Your task to perform on an android device: Find coffee shops on Maps Image 0: 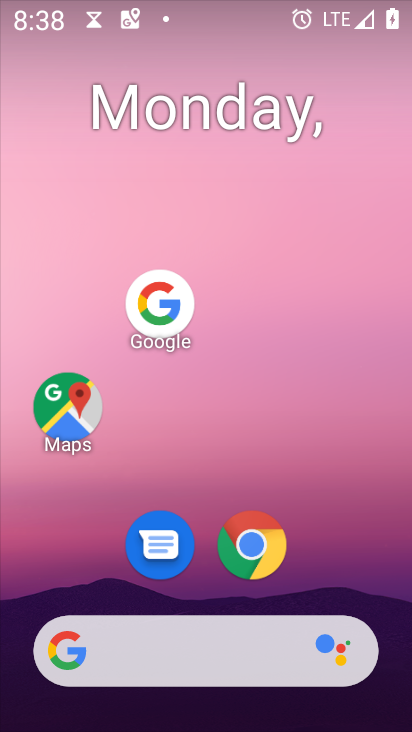
Step 0: click (61, 415)
Your task to perform on an android device: Find coffee shops on Maps Image 1: 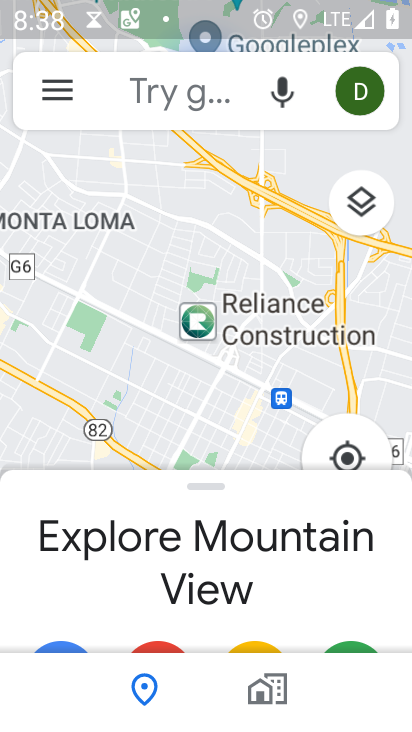
Step 1: click (181, 94)
Your task to perform on an android device: Find coffee shops on Maps Image 2: 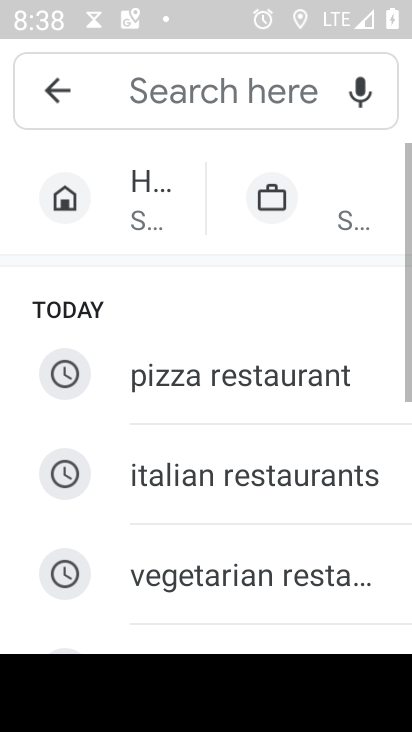
Step 2: drag from (204, 581) to (363, 191)
Your task to perform on an android device: Find coffee shops on Maps Image 3: 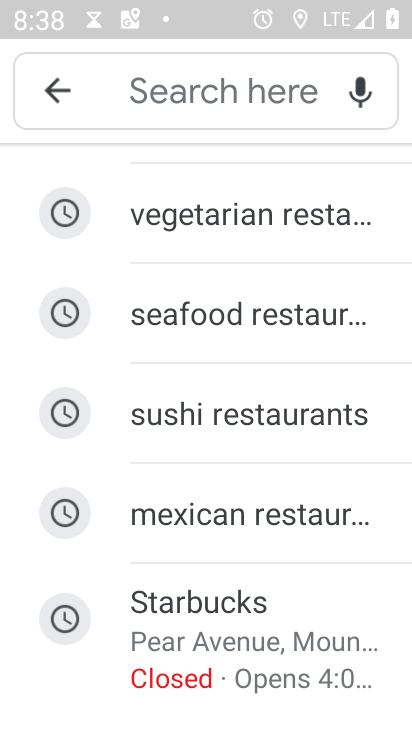
Step 3: drag from (251, 586) to (243, 669)
Your task to perform on an android device: Find coffee shops on Maps Image 4: 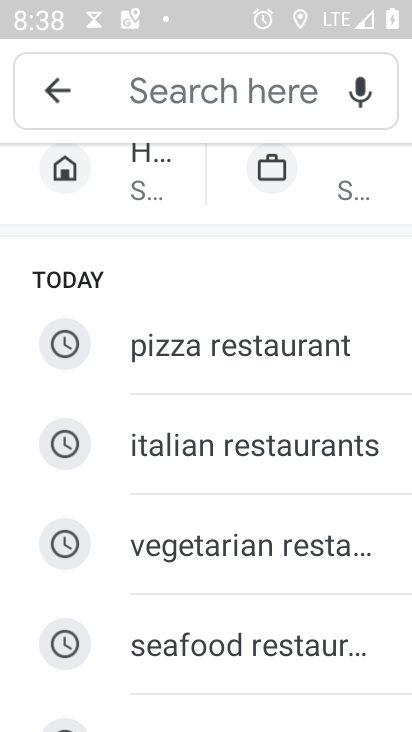
Step 4: click (165, 97)
Your task to perform on an android device: Find coffee shops on Maps Image 5: 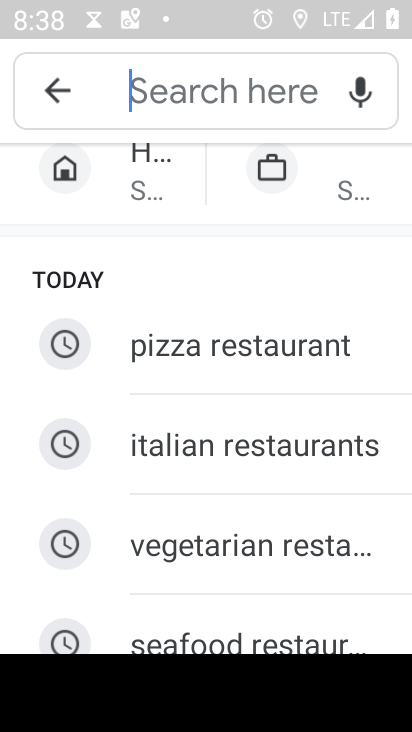
Step 5: type "coffee"
Your task to perform on an android device: Find coffee shops on Maps Image 6: 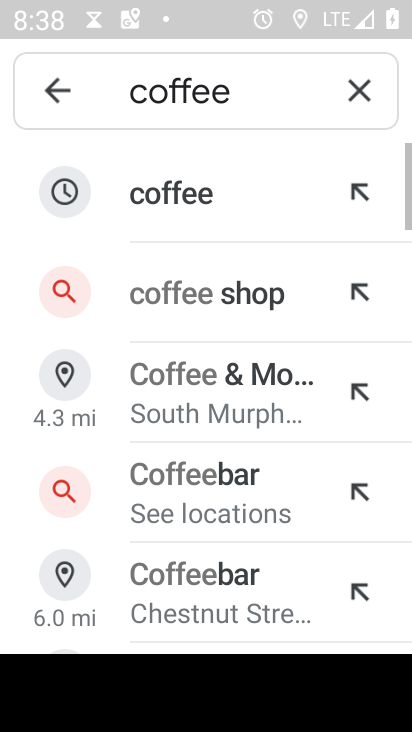
Step 6: click (209, 297)
Your task to perform on an android device: Find coffee shops on Maps Image 7: 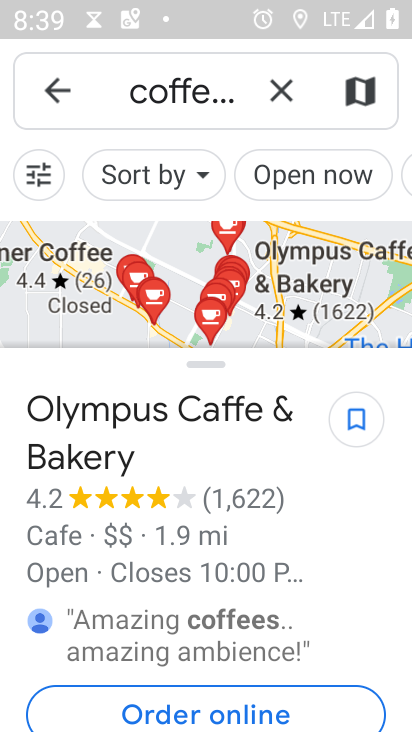
Step 7: task complete